Your task to perform on an android device: turn off sleep mode Image 0: 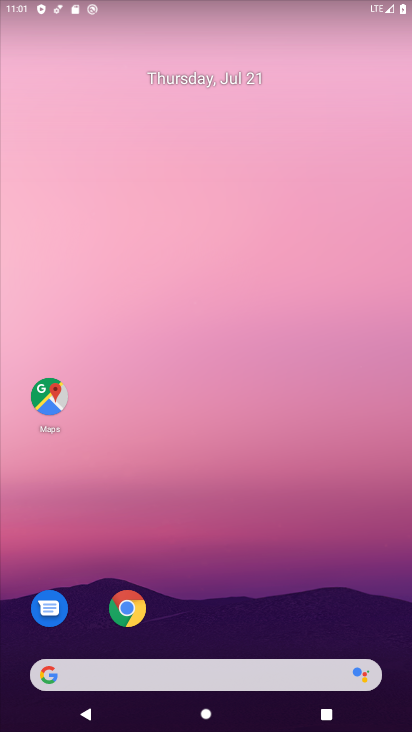
Step 0: drag from (237, 620) to (320, 260)
Your task to perform on an android device: turn off sleep mode Image 1: 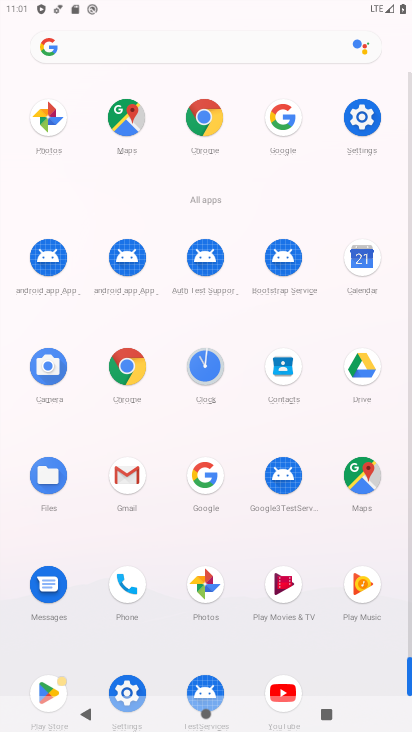
Step 1: click (377, 105)
Your task to perform on an android device: turn off sleep mode Image 2: 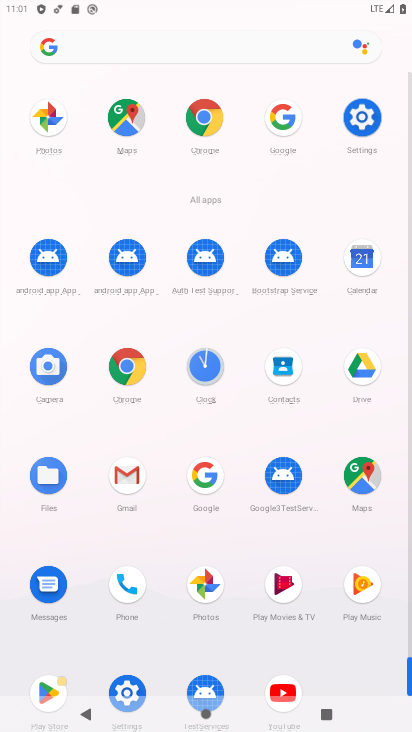
Step 2: click (377, 105)
Your task to perform on an android device: turn off sleep mode Image 3: 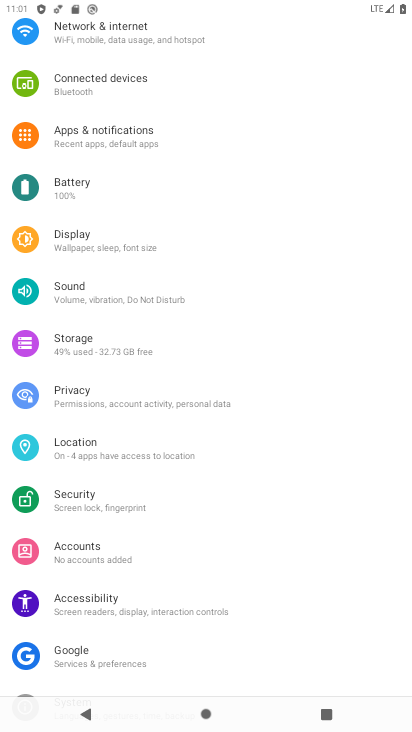
Step 3: click (75, 239)
Your task to perform on an android device: turn off sleep mode Image 4: 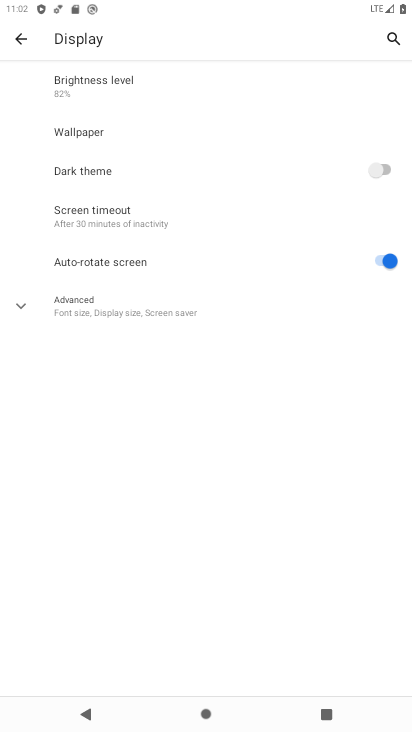
Step 4: drag from (134, 601) to (164, 227)
Your task to perform on an android device: turn off sleep mode Image 5: 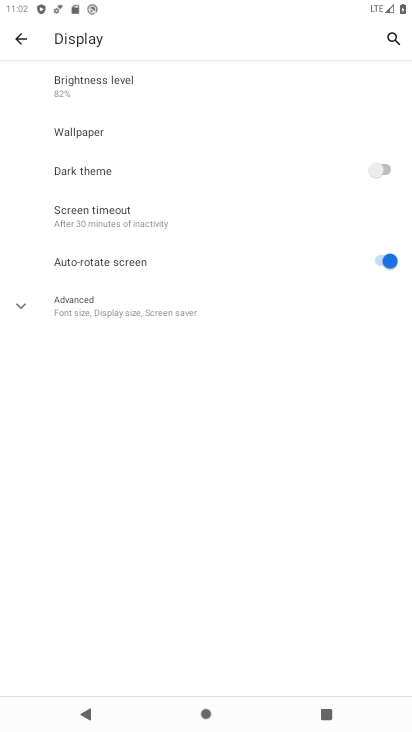
Step 5: drag from (238, 447) to (309, 128)
Your task to perform on an android device: turn off sleep mode Image 6: 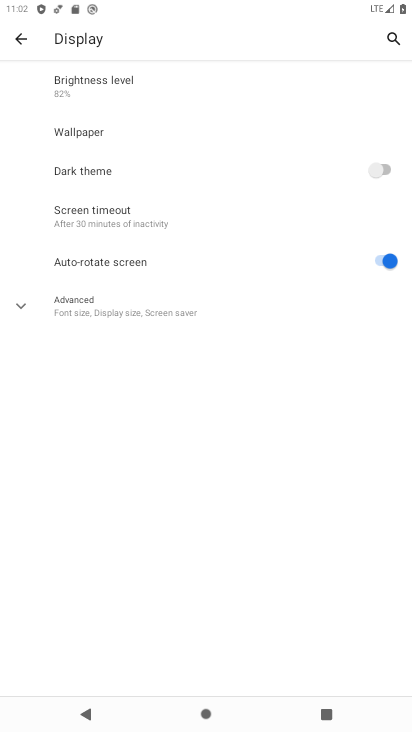
Step 6: click (98, 206)
Your task to perform on an android device: turn off sleep mode Image 7: 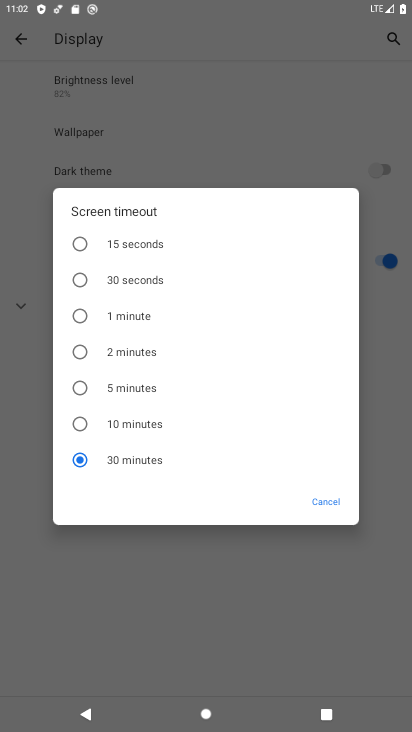
Step 7: task complete